Your task to perform on an android device: Go to CNN.com Image 0: 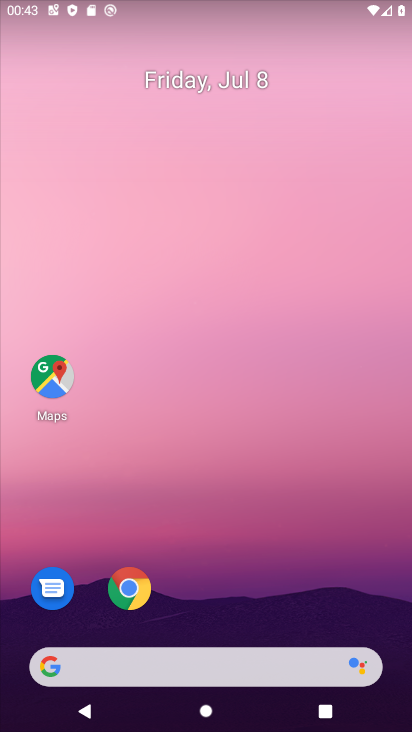
Step 0: click (160, 49)
Your task to perform on an android device: Go to CNN.com Image 1: 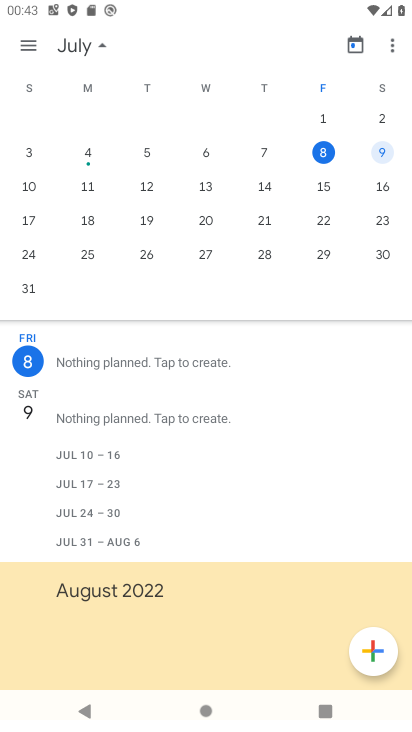
Step 1: drag from (177, 596) to (325, 194)
Your task to perform on an android device: Go to CNN.com Image 2: 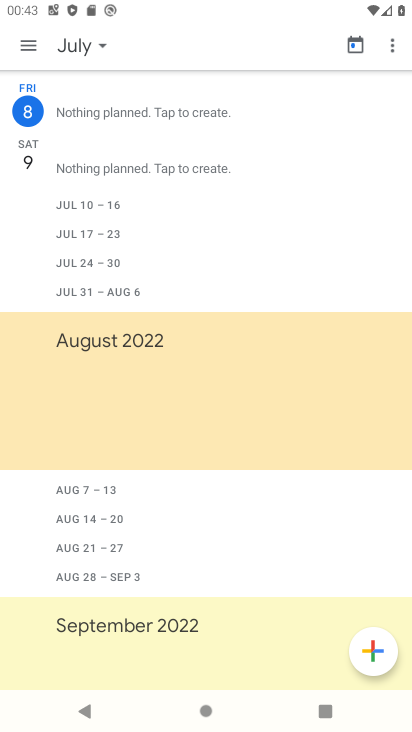
Step 2: press home button
Your task to perform on an android device: Go to CNN.com Image 3: 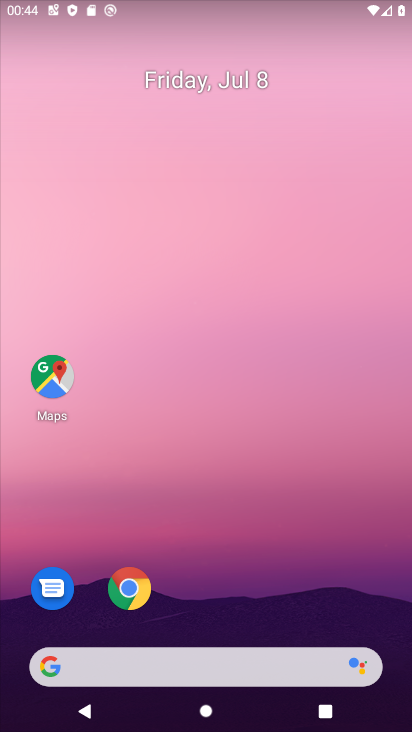
Step 3: drag from (209, 627) to (261, 187)
Your task to perform on an android device: Go to CNN.com Image 4: 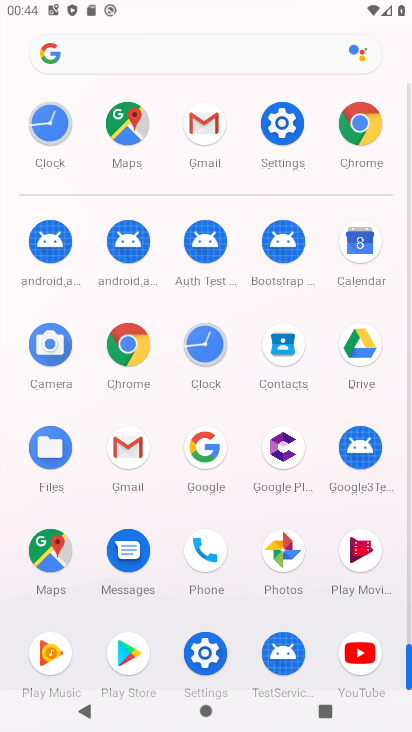
Step 4: click (128, 342)
Your task to perform on an android device: Go to CNN.com Image 5: 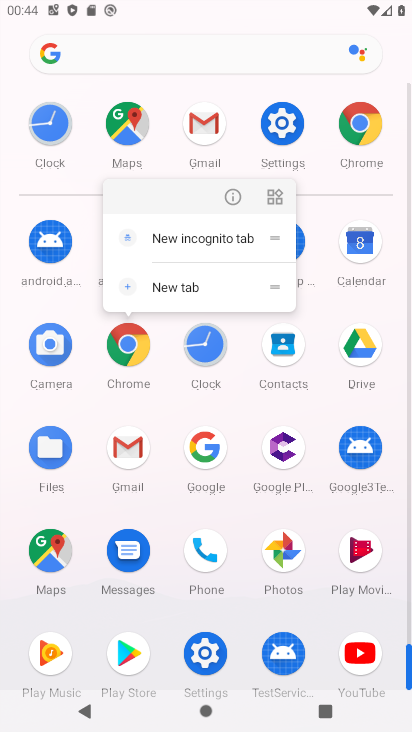
Step 5: click (229, 190)
Your task to perform on an android device: Go to CNN.com Image 6: 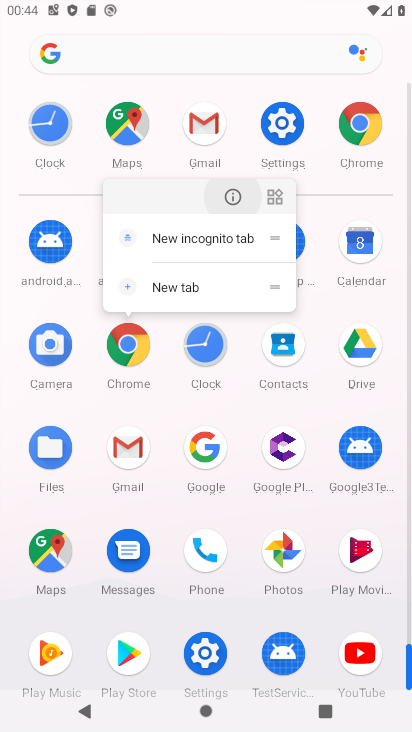
Step 6: click (229, 187)
Your task to perform on an android device: Go to CNN.com Image 7: 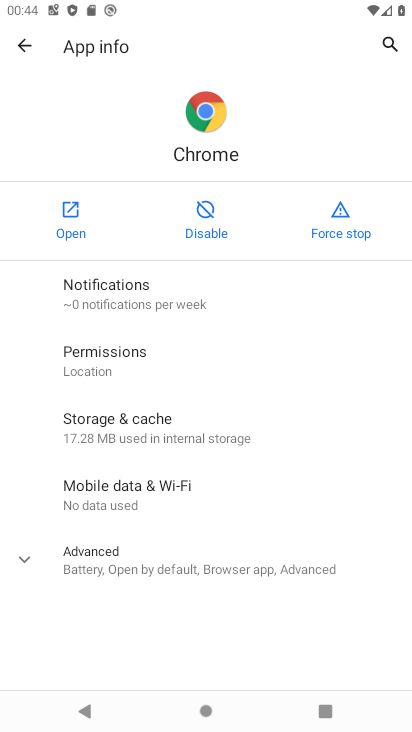
Step 7: click (70, 217)
Your task to perform on an android device: Go to CNN.com Image 8: 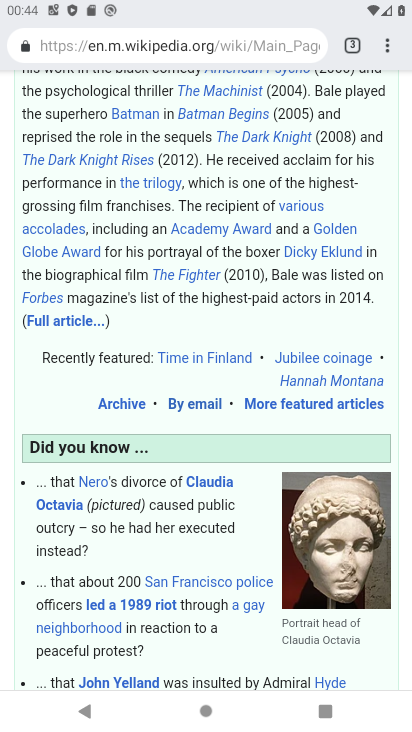
Step 8: drag from (193, 567) to (323, 225)
Your task to perform on an android device: Go to CNN.com Image 9: 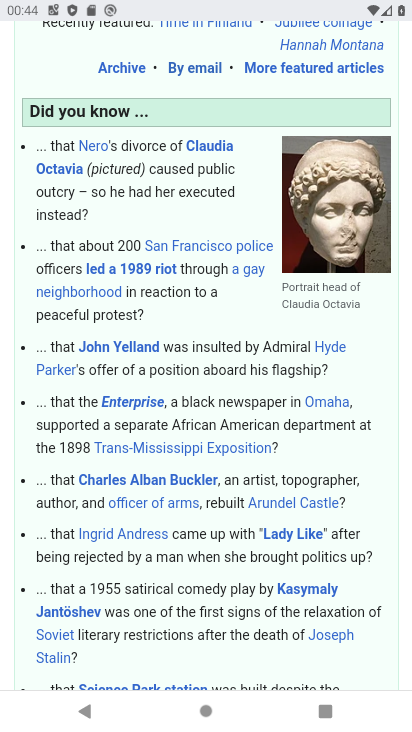
Step 9: drag from (267, 252) to (338, 654)
Your task to perform on an android device: Go to CNN.com Image 10: 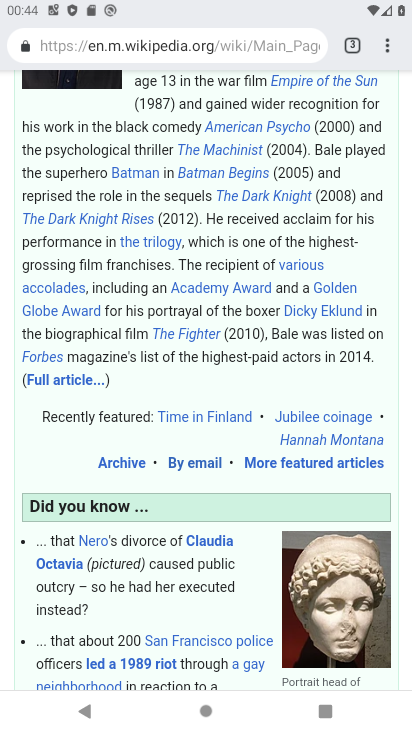
Step 10: click (195, 41)
Your task to perform on an android device: Go to CNN.com Image 11: 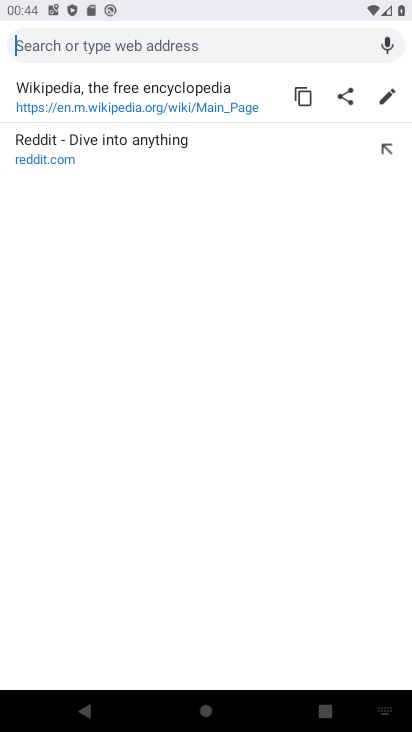
Step 11: type "cnn.com"
Your task to perform on an android device: Go to CNN.com Image 12: 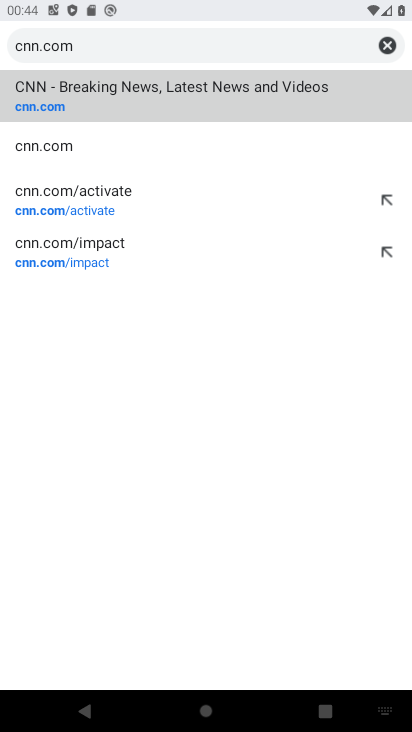
Step 12: click (22, 99)
Your task to perform on an android device: Go to CNN.com Image 13: 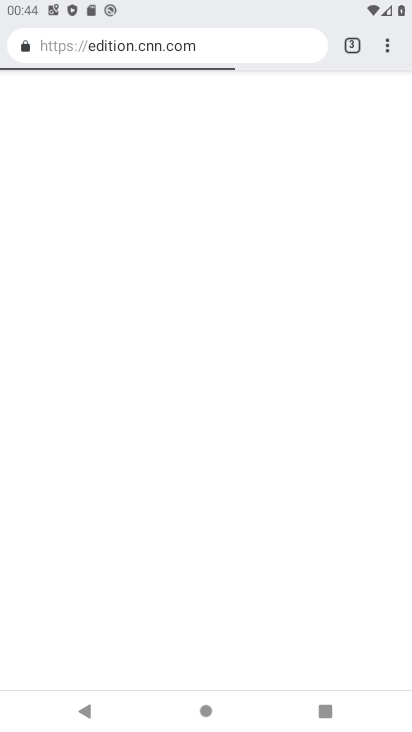
Step 13: task complete